Your task to perform on an android device: Search for pizza restaurants on Maps Image 0: 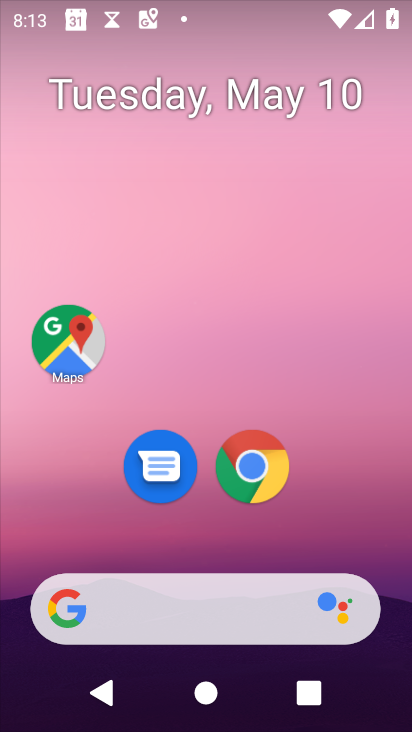
Step 0: drag from (297, 534) to (338, 20)
Your task to perform on an android device: Search for pizza restaurants on Maps Image 1: 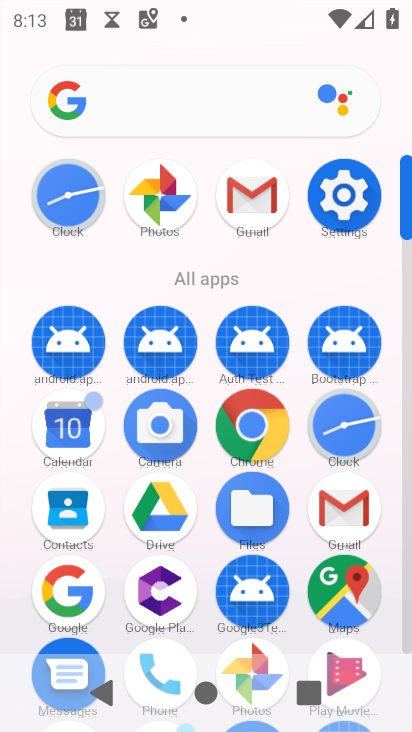
Step 1: click (365, 584)
Your task to perform on an android device: Search for pizza restaurants on Maps Image 2: 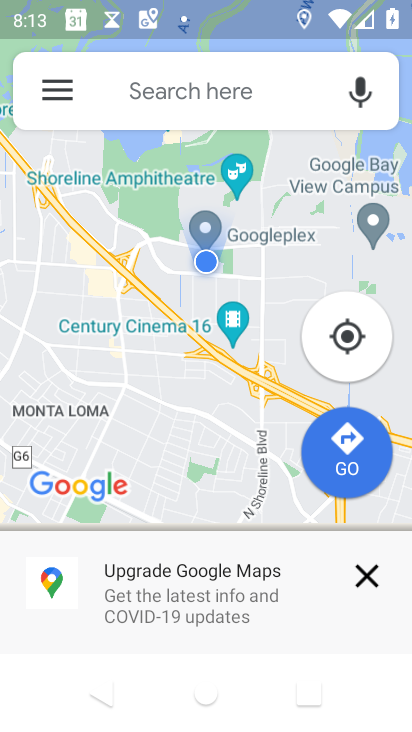
Step 2: click (126, 94)
Your task to perform on an android device: Search for pizza restaurants on Maps Image 3: 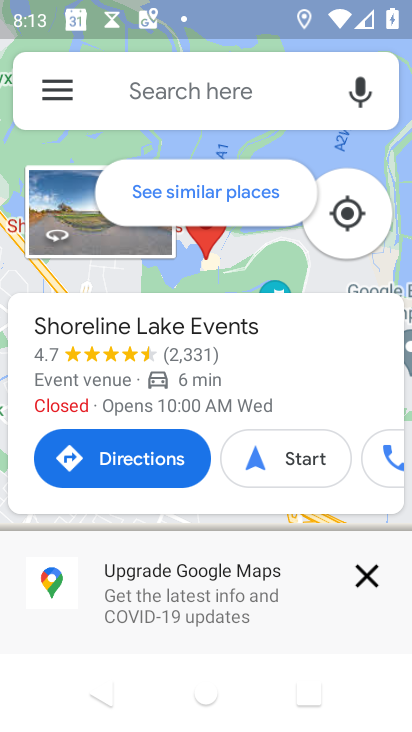
Step 3: click (186, 97)
Your task to perform on an android device: Search for pizza restaurants on Maps Image 4: 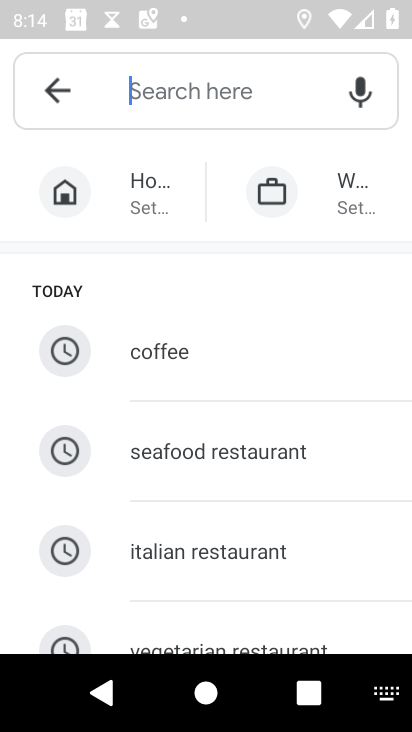
Step 4: type "pizza restaurant"
Your task to perform on an android device: Search for pizza restaurants on Maps Image 5: 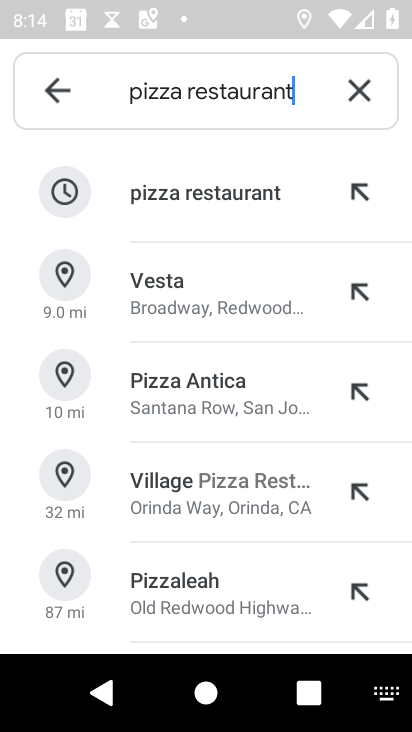
Step 5: click (238, 182)
Your task to perform on an android device: Search for pizza restaurants on Maps Image 6: 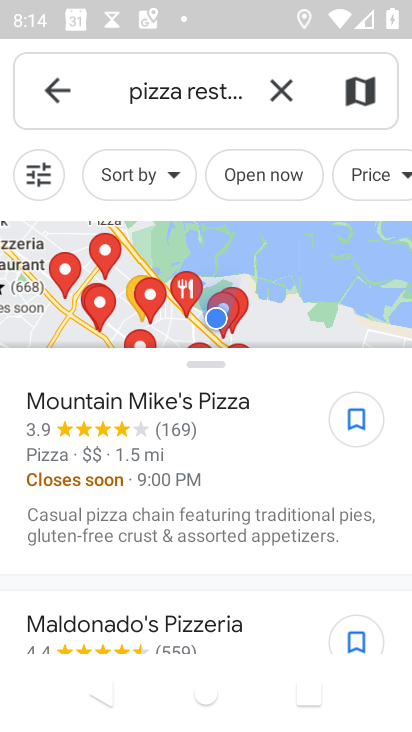
Step 6: task complete